Your task to perform on an android device: stop showing notifications on the lock screen Image 0: 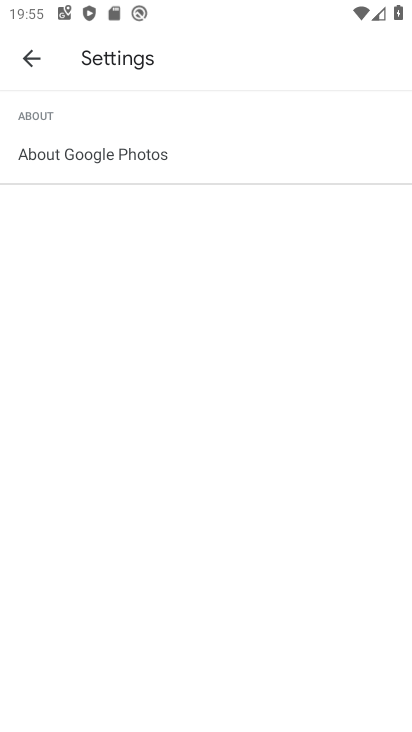
Step 0: press back button
Your task to perform on an android device: stop showing notifications on the lock screen Image 1: 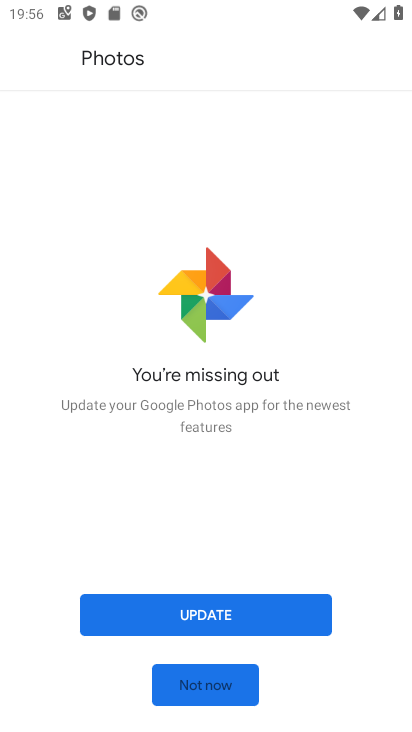
Step 1: press home button
Your task to perform on an android device: stop showing notifications on the lock screen Image 2: 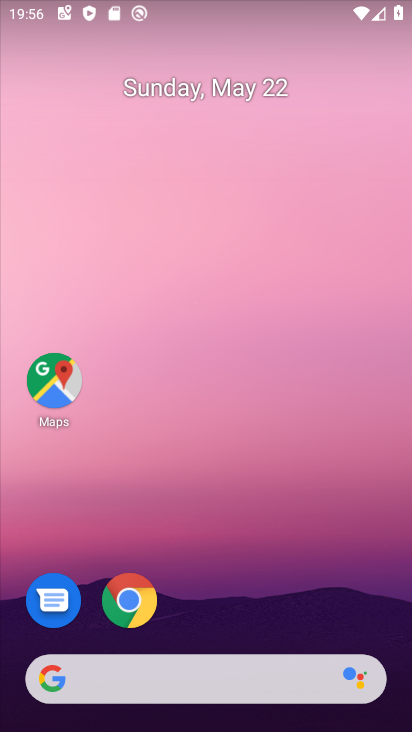
Step 2: drag from (261, 592) to (253, 53)
Your task to perform on an android device: stop showing notifications on the lock screen Image 3: 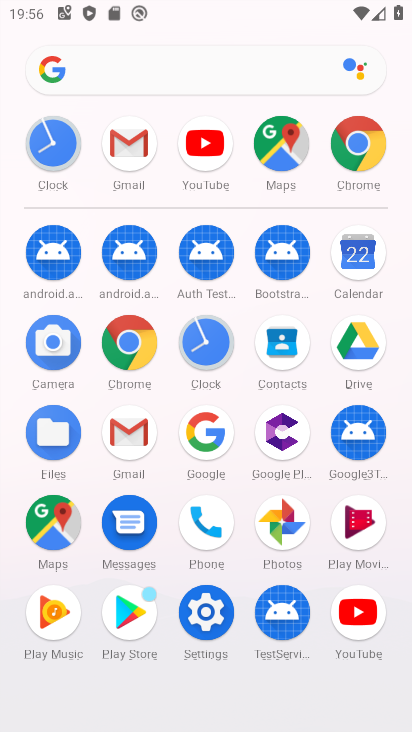
Step 3: click (207, 615)
Your task to perform on an android device: stop showing notifications on the lock screen Image 4: 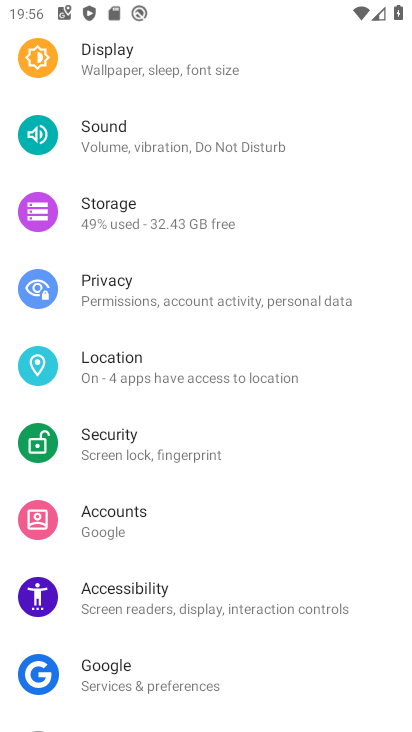
Step 4: drag from (198, 531) to (223, 120)
Your task to perform on an android device: stop showing notifications on the lock screen Image 5: 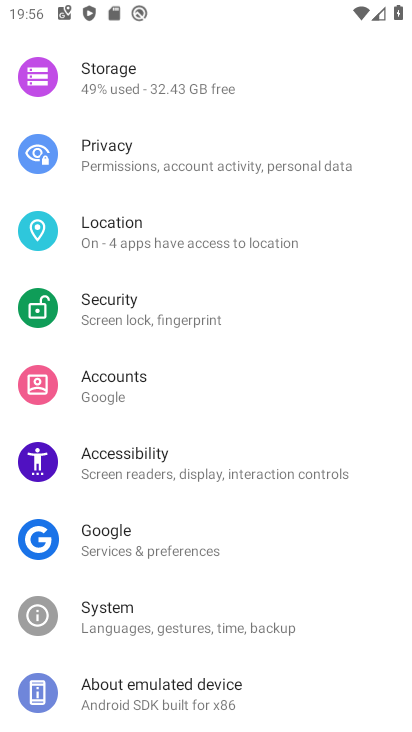
Step 5: drag from (170, 550) to (170, 122)
Your task to perform on an android device: stop showing notifications on the lock screen Image 6: 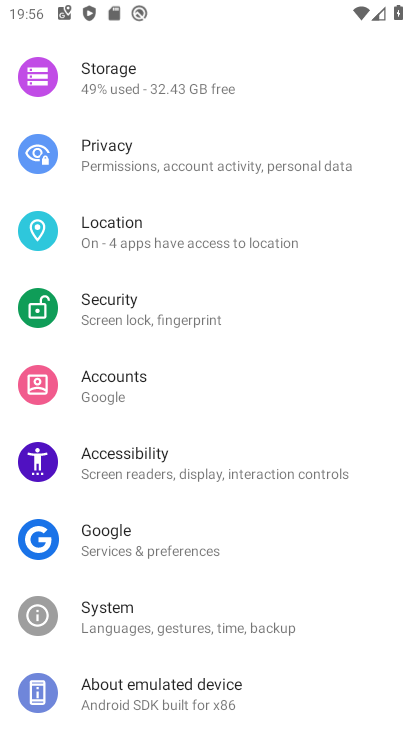
Step 6: drag from (170, 120) to (181, 537)
Your task to perform on an android device: stop showing notifications on the lock screen Image 7: 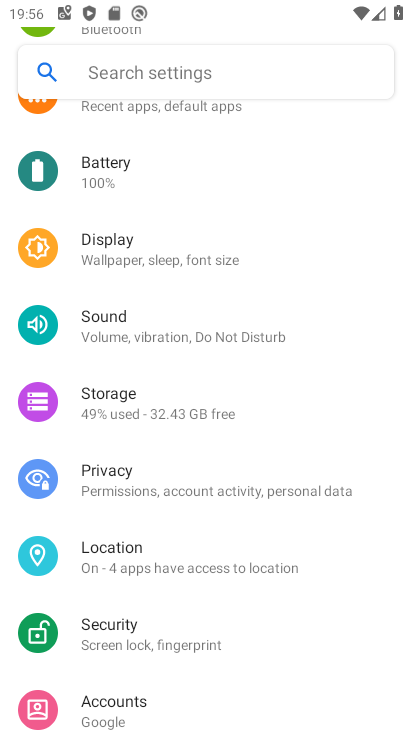
Step 7: drag from (208, 185) to (221, 533)
Your task to perform on an android device: stop showing notifications on the lock screen Image 8: 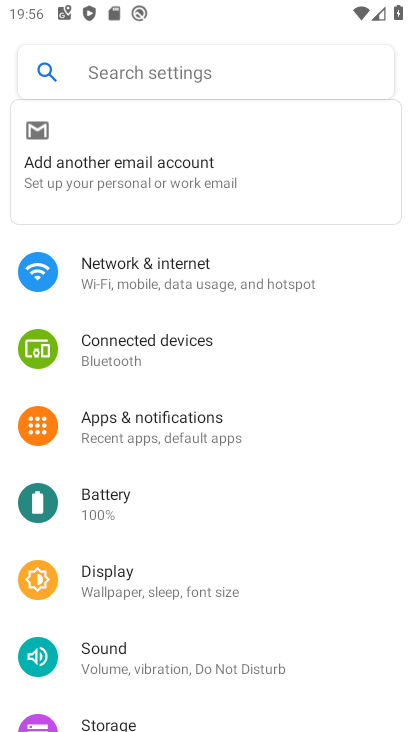
Step 8: click (157, 419)
Your task to perform on an android device: stop showing notifications on the lock screen Image 9: 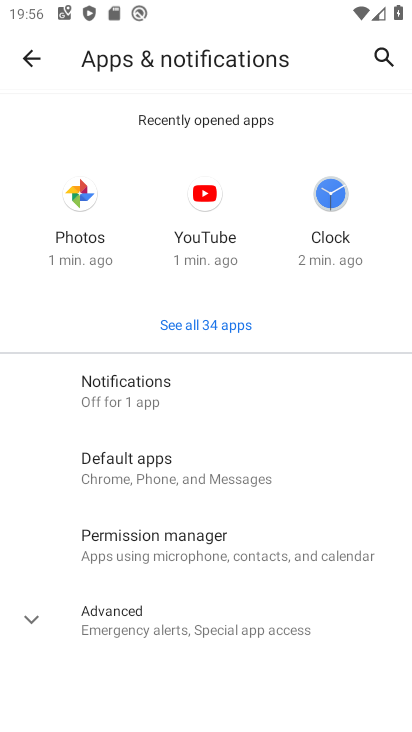
Step 9: click (199, 385)
Your task to perform on an android device: stop showing notifications on the lock screen Image 10: 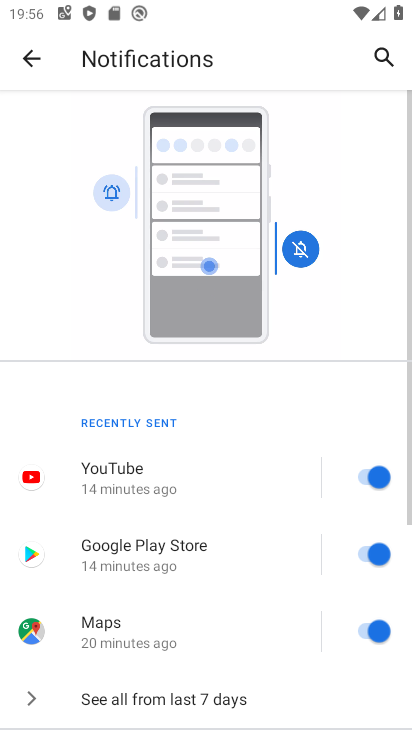
Step 10: drag from (199, 613) to (219, 137)
Your task to perform on an android device: stop showing notifications on the lock screen Image 11: 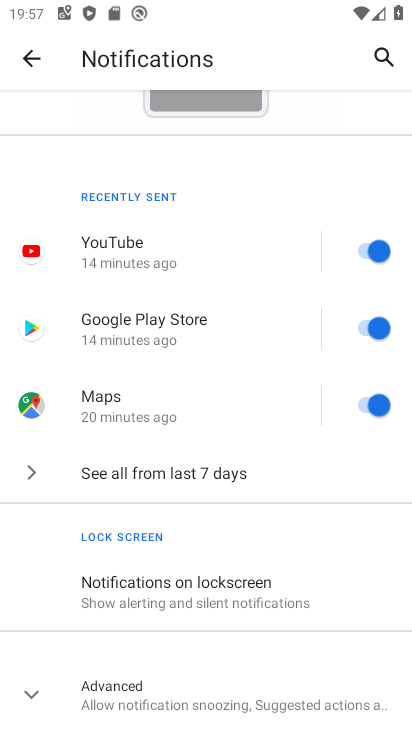
Step 11: click (168, 689)
Your task to perform on an android device: stop showing notifications on the lock screen Image 12: 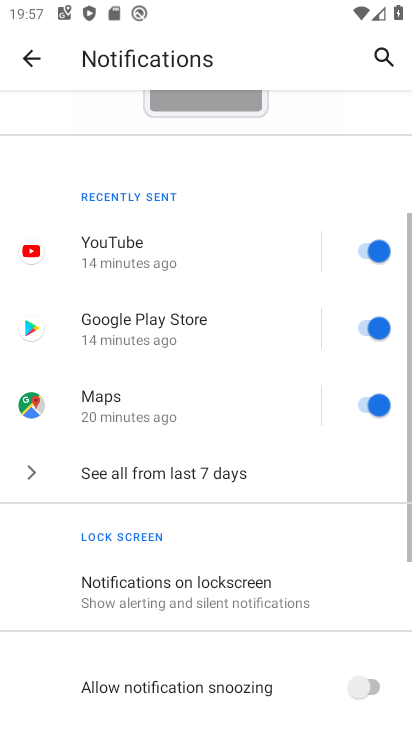
Step 12: drag from (203, 655) to (203, 156)
Your task to perform on an android device: stop showing notifications on the lock screen Image 13: 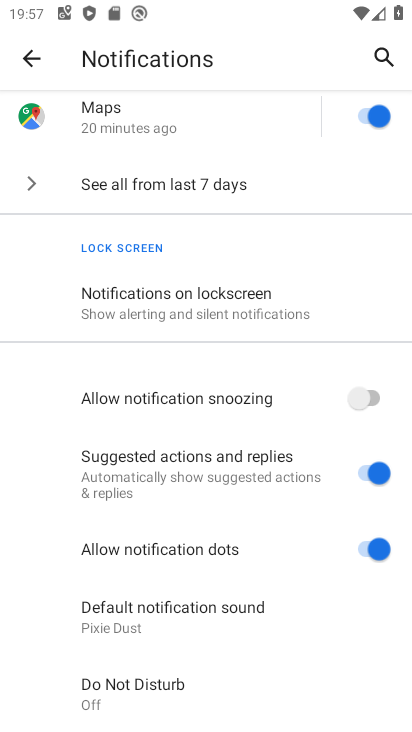
Step 13: click (148, 300)
Your task to perform on an android device: stop showing notifications on the lock screen Image 14: 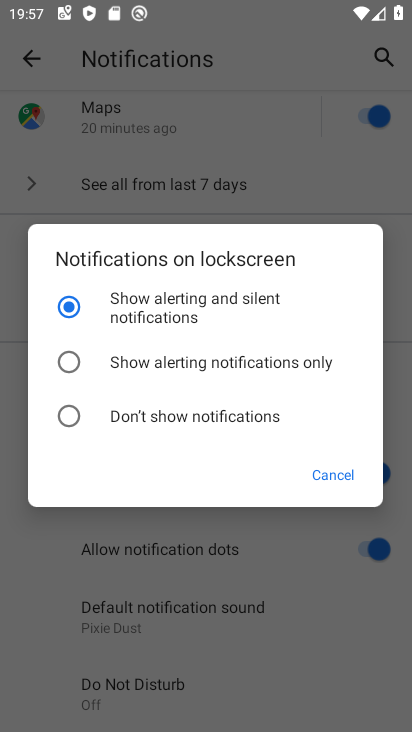
Step 14: click (113, 417)
Your task to perform on an android device: stop showing notifications on the lock screen Image 15: 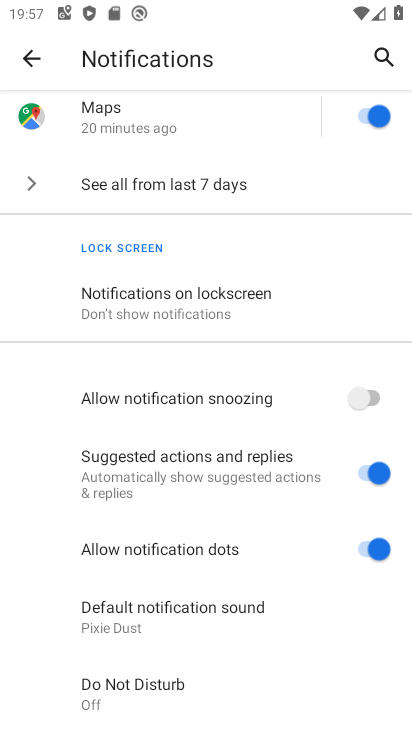
Step 15: task complete